Your task to perform on an android device: turn pop-ups off in chrome Image 0: 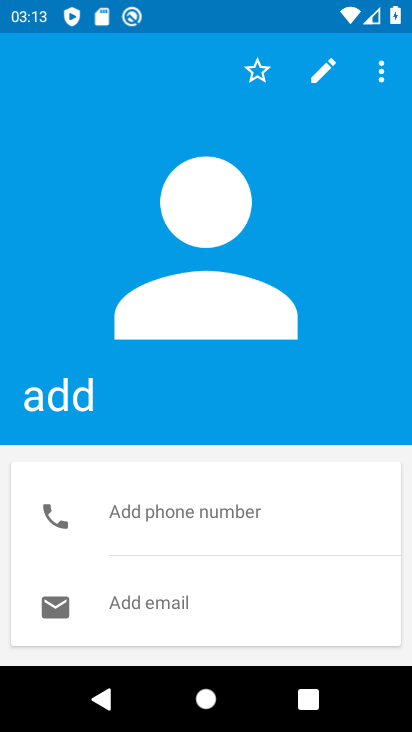
Step 0: drag from (181, 575) to (241, 271)
Your task to perform on an android device: turn pop-ups off in chrome Image 1: 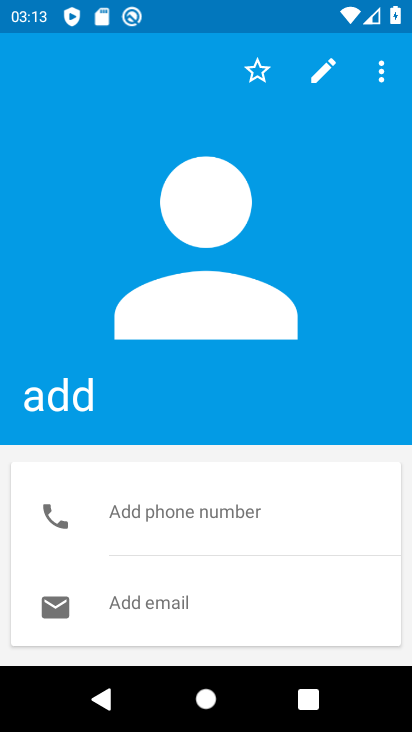
Step 1: press home button
Your task to perform on an android device: turn pop-ups off in chrome Image 2: 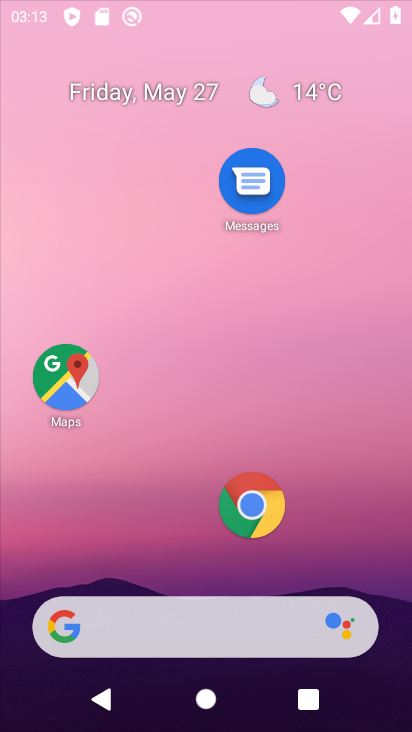
Step 2: drag from (220, 510) to (251, 46)
Your task to perform on an android device: turn pop-ups off in chrome Image 3: 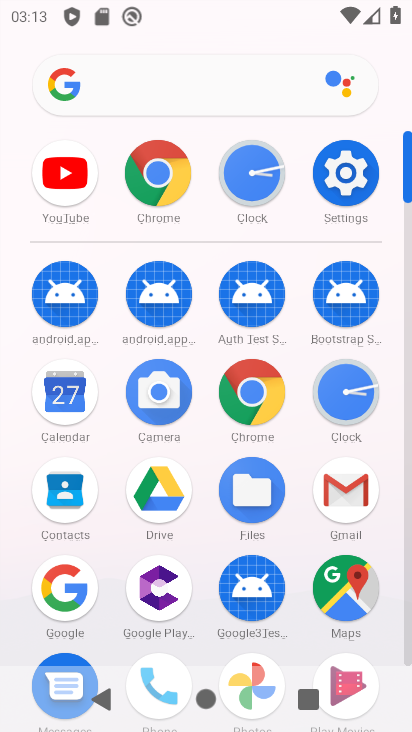
Step 3: click (247, 381)
Your task to perform on an android device: turn pop-ups off in chrome Image 4: 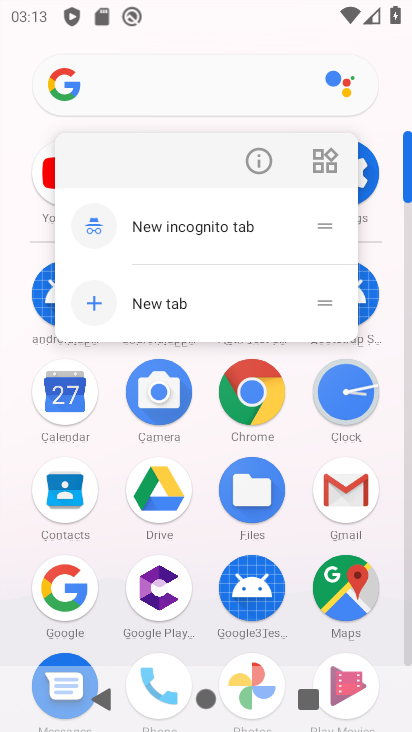
Step 4: click (257, 142)
Your task to perform on an android device: turn pop-ups off in chrome Image 5: 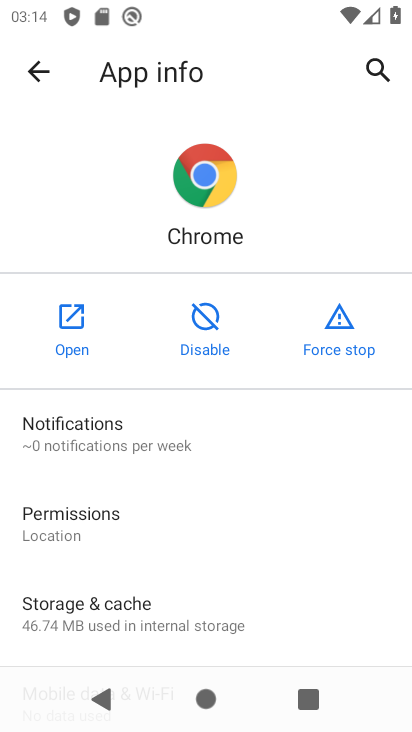
Step 5: click (67, 312)
Your task to perform on an android device: turn pop-ups off in chrome Image 6: 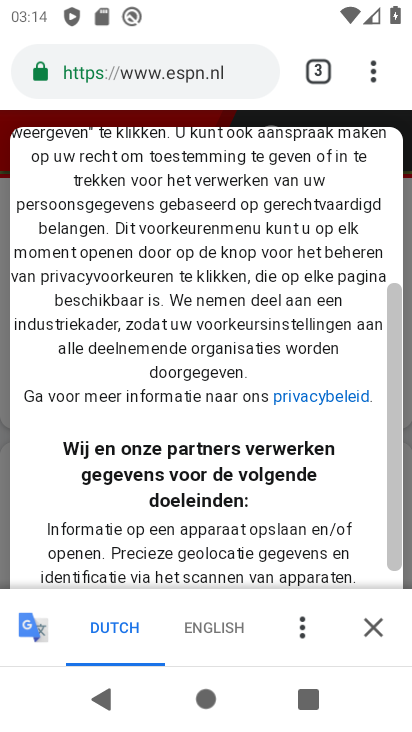
Step 6: drag from (174, 542) to (253, 188)
Your task to perform on an android device: turn pop-ups off in chrome Image 7: 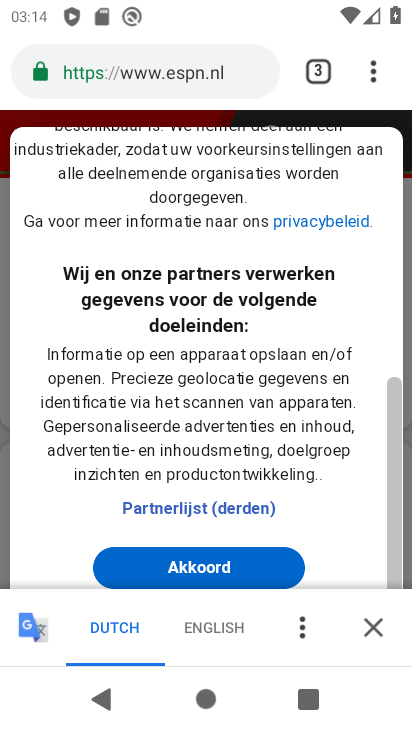
Step 7: drag from (366, 67) to (153, 505)
Your task to perform on an android device: turn pop-ups off in chrome Image 8: 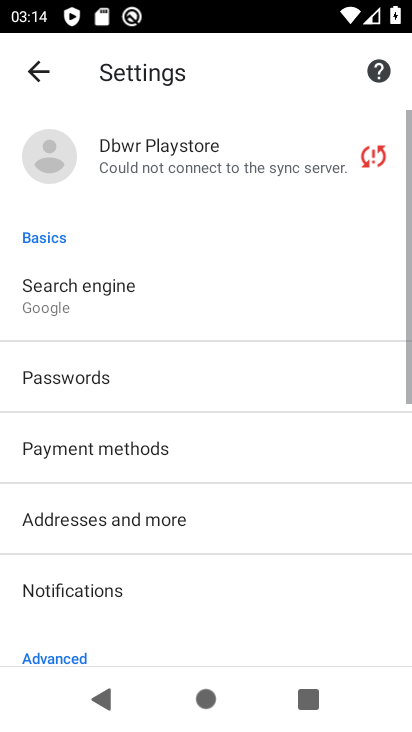
Step 8: drag from (175, 494) to (214, 226)
Your task to perform on an android device: turn pop-ups off in chrome Image 9: 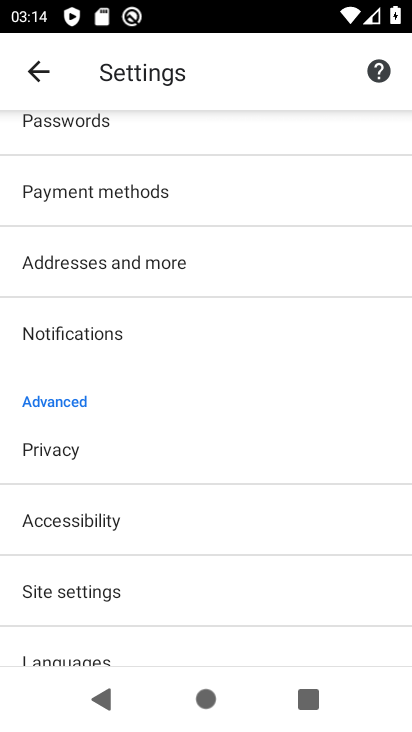
Step 9: click (120, 579)
Your task to perform on an android device: turn pop-ups off in chrome Image 10: 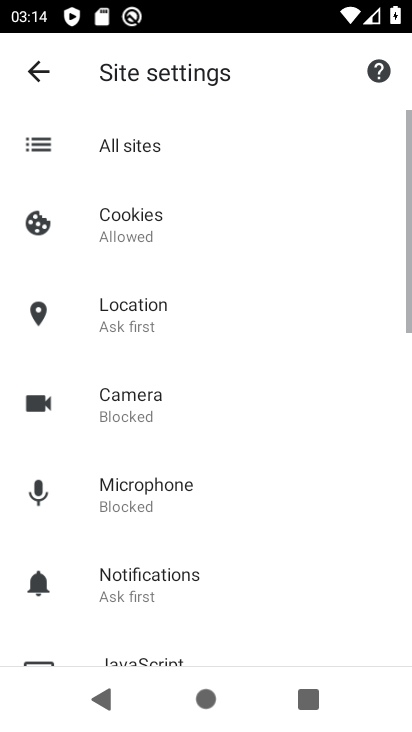
Step 10: drag from (135, 568) to (203, 278)
Your task to perform on an android device: turn pop-ups off in chrome Image 11: 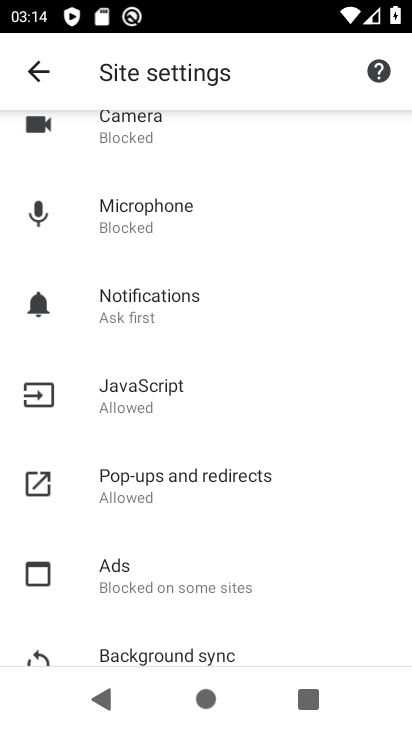
Step 11: click (177, 491)
Your task to perform on an android device: turn pop-ups off in chrome Image 12: 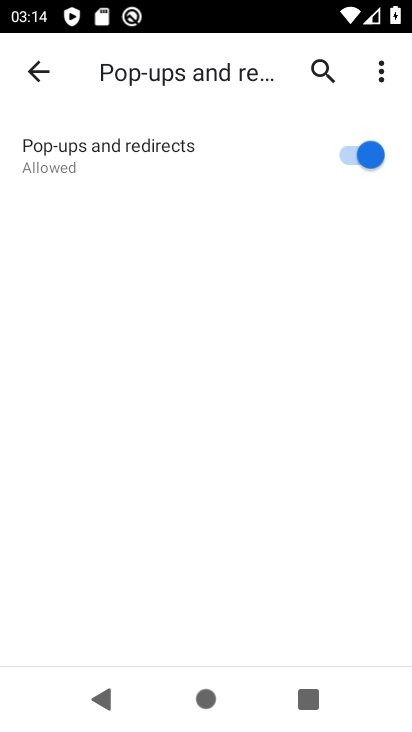
Step 12: click (350, 149)
Your task to perform on an android device: turn pop-ups off in chrome Image 13: 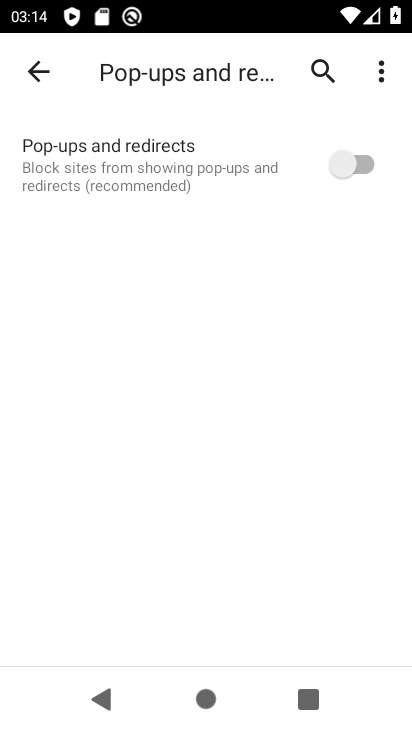
Step 13: task complete